Your task to perform on an android device: Go to Google Image 0: 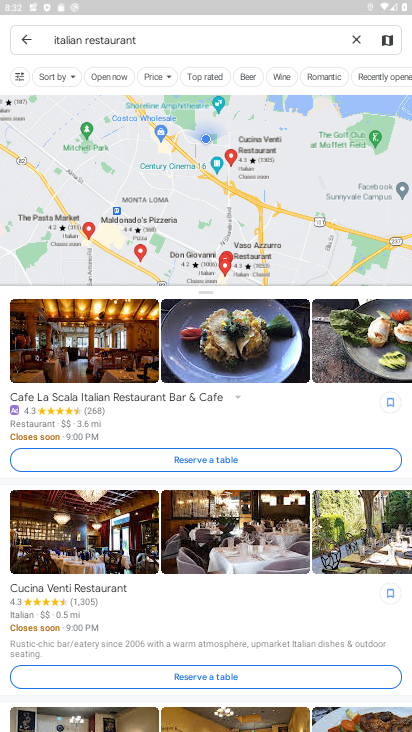
Step 0: press home button
Your task to perform on an android device: Go to Google Image 1: 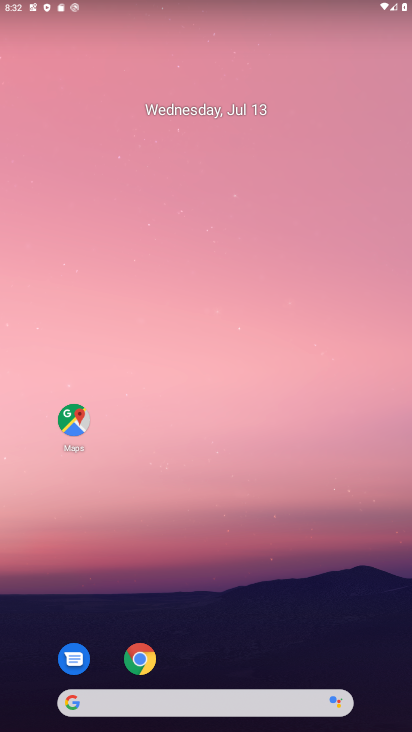
Step 1: drag from (203, 655) to (192, 354)
Your task to perform on an android device: Go to Google Image 2: 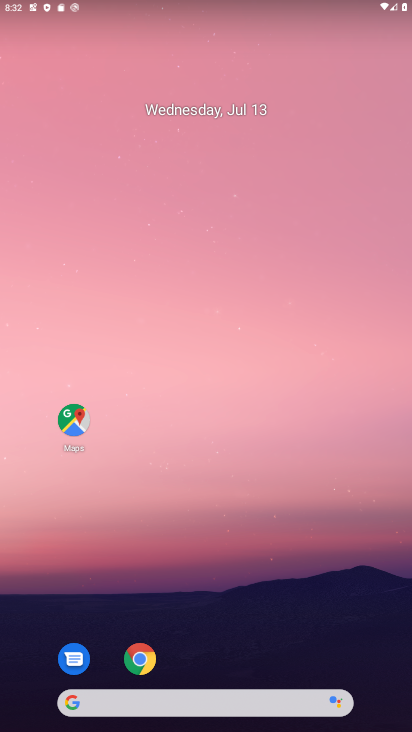
Step 2: drag from (189, 662) to (186, 54)
Your task to perform on an android device: Go to Google Image 3: 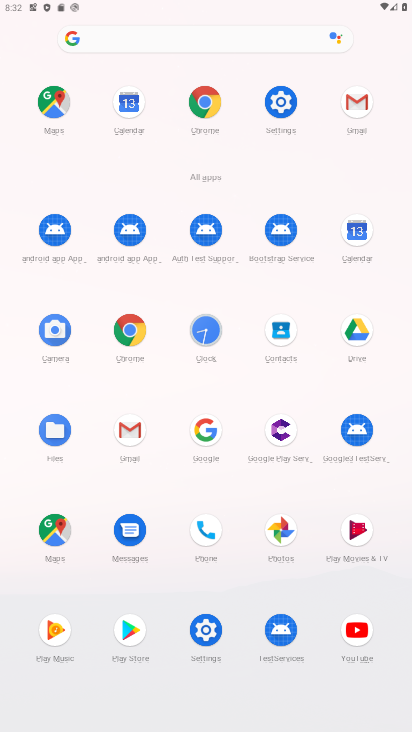
Step 3: click (194, 430)
Your task to perform on an android device: Go to Google Image 4: 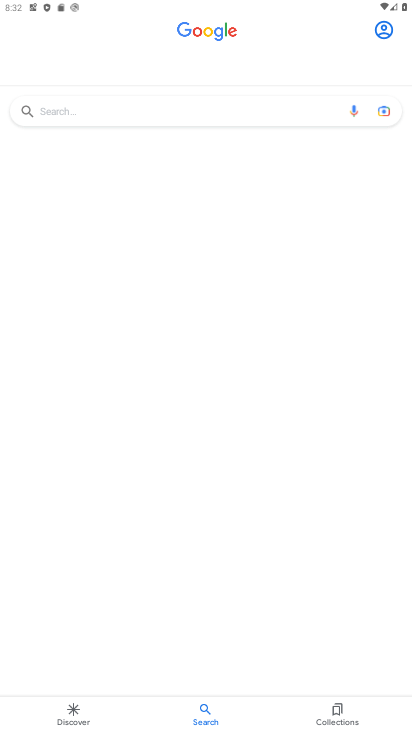
Step 4: task complete